Your task to perform on an android device: Open Reddit.com Image 0: 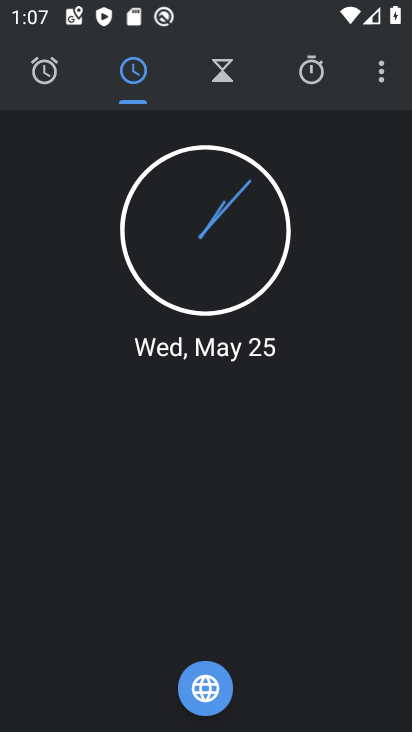
Step 0: press home button
Your task to perform on an android device: Open Reddit.com Image 1: 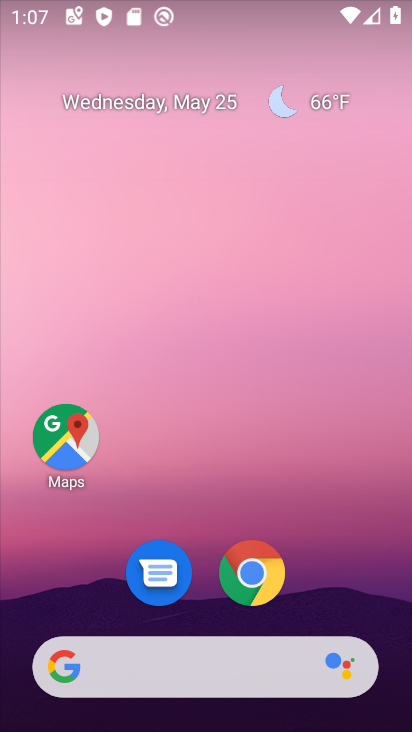
Step 1: click (251, 571)
Your task to perform on an android device: Open Reddit.com Image 2: 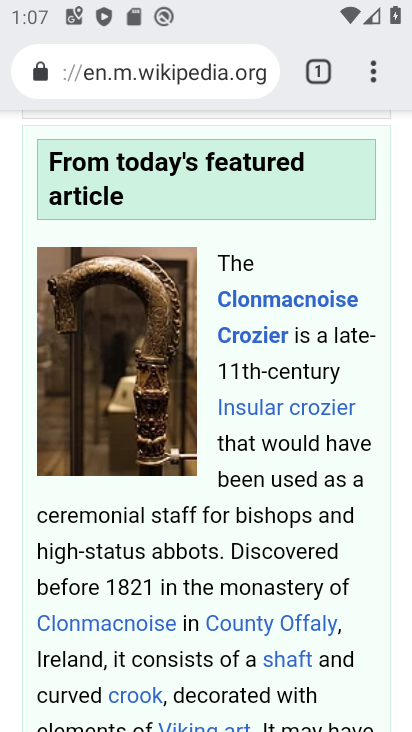
Step 2: click (136, 80)
Your task to perform on an android device: Open Reddit.com Image 3: 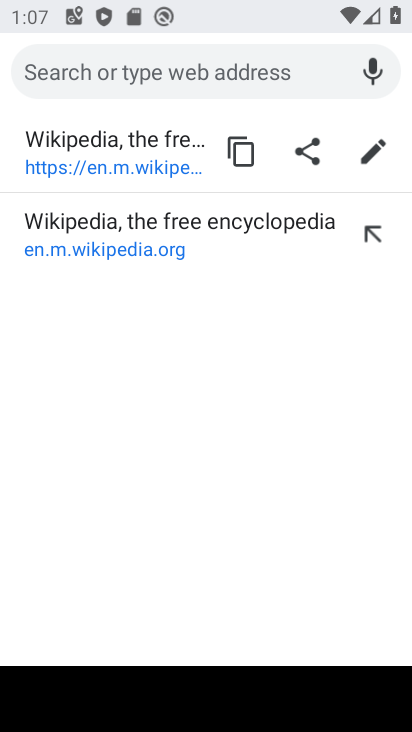
Step 3: type "reddit.com"
Your task to perform on an android device: Open Reddit.com Image 4: 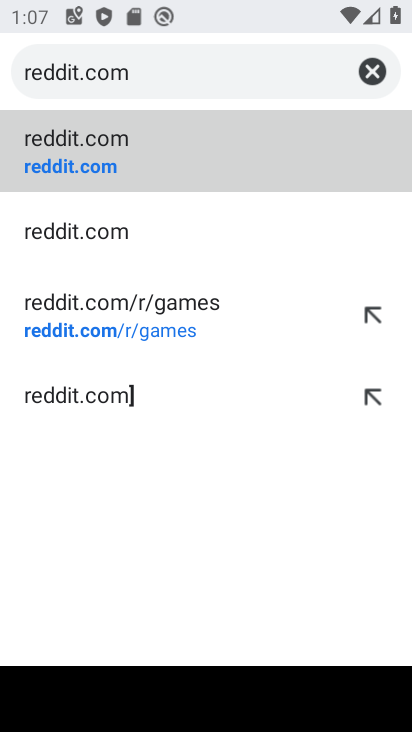
Step 4: click (94, 158)
Your task to perform on an android device: Open Reddit.com Image 5: 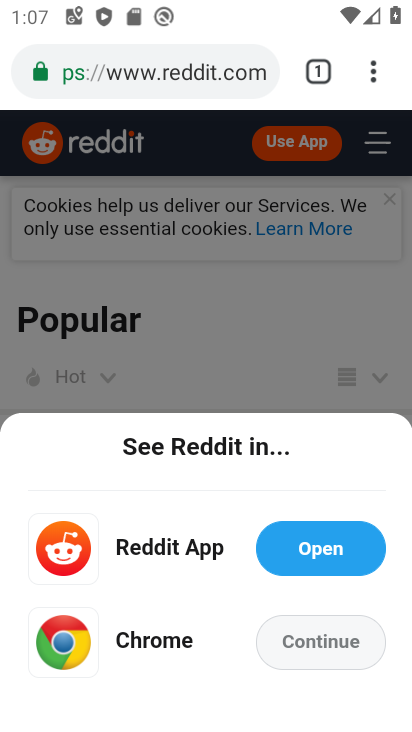
Step 5: task complete